Your task to perform on an android device: Turn off the flashlight Image 0: 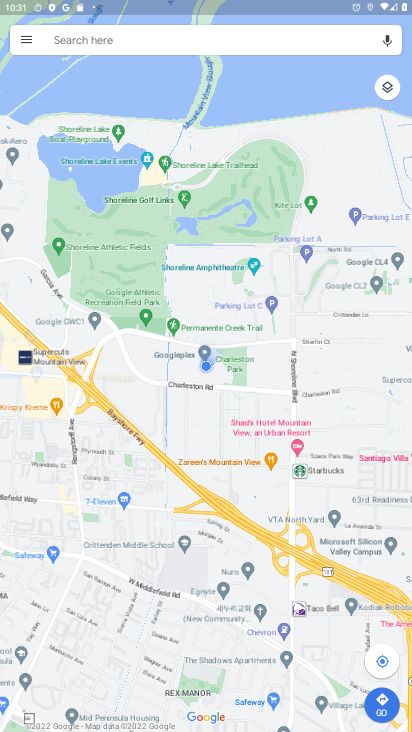
Step 0: drag from (237, 0) to (228, 456)
Your task to perform on an android device: Turn off the flashlight Image 1: 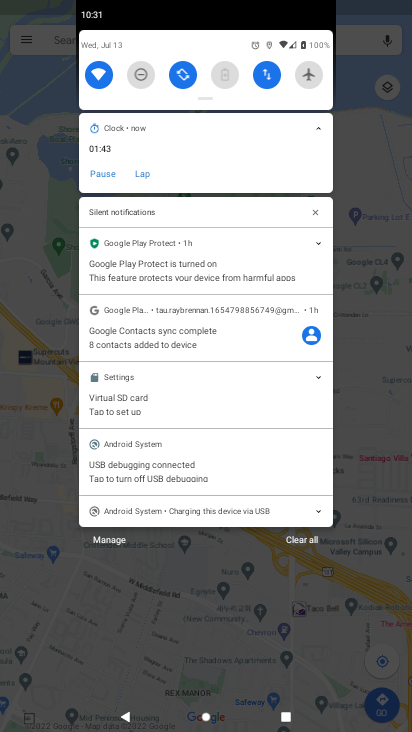
Step 1: task complete